Your task to perform on an android device: Open accessibility settings Image 0: 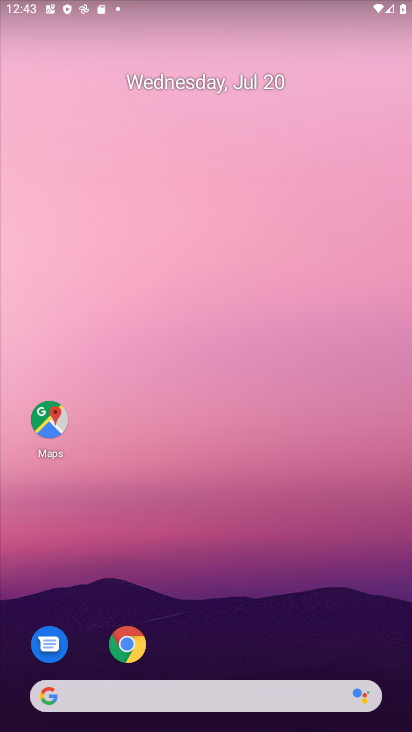
Step 0: press home button
Your task to perform on an android device: Open accessibility settings Image 1: 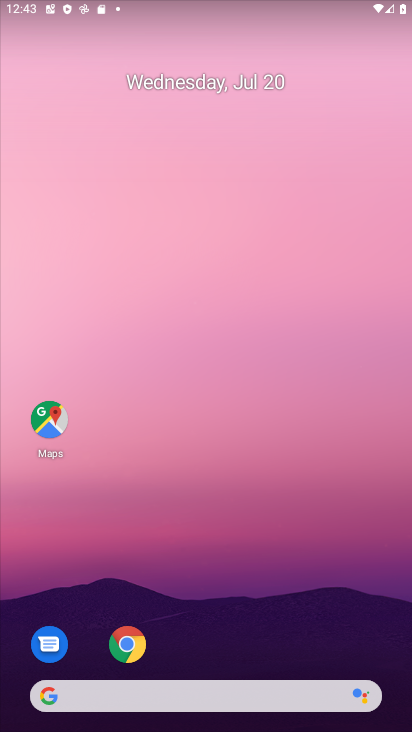
Step 1: drag from (205, 711) to (165, 175)
Your task to perform on an android device: Open accessibility settings Image 2: 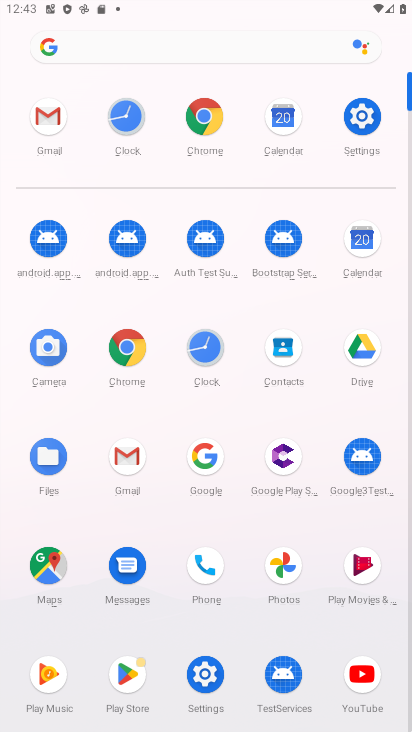
Step 2: click (206, 658)
Your task to perform on an android device: Open accessibility settings Image 3: 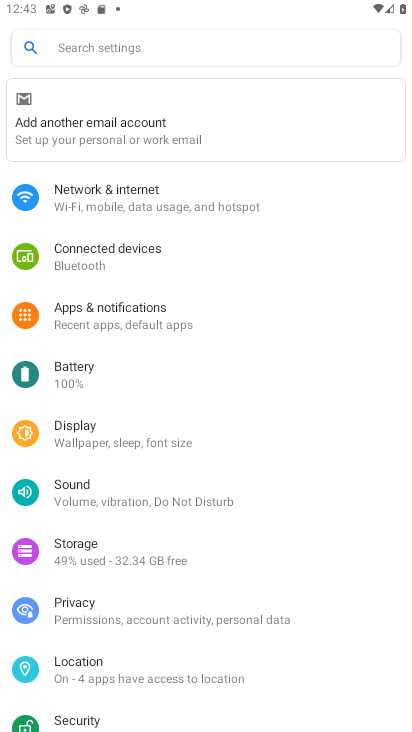
Step 3: drag from (131, 567) to (124, 301)
Your task to perform on an android device: Open accessibility settings Image 4: 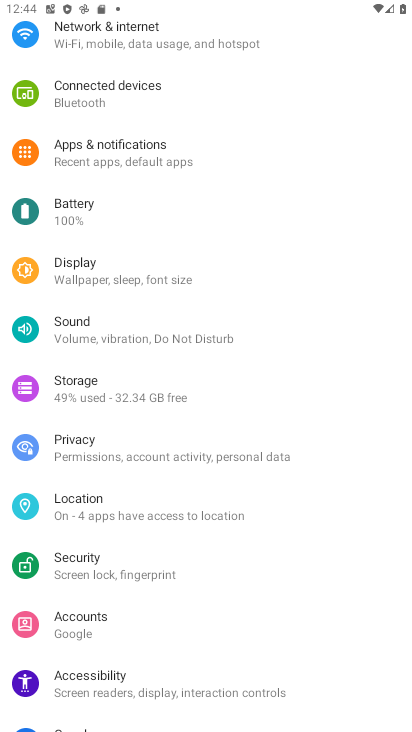
Step 4: drag from (167, 647) to (176, 411)
Your task to perform on an android device: Open accessibility settings Image 5: 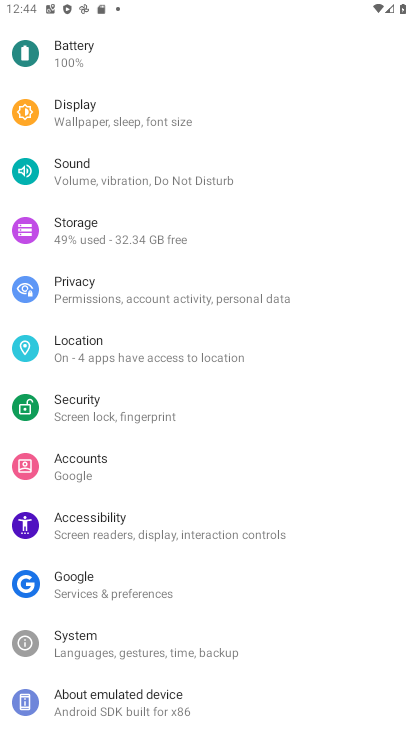
Step 5: click (100, 537)
Your task to perform on an android device: Open accessibility settings Image 6: 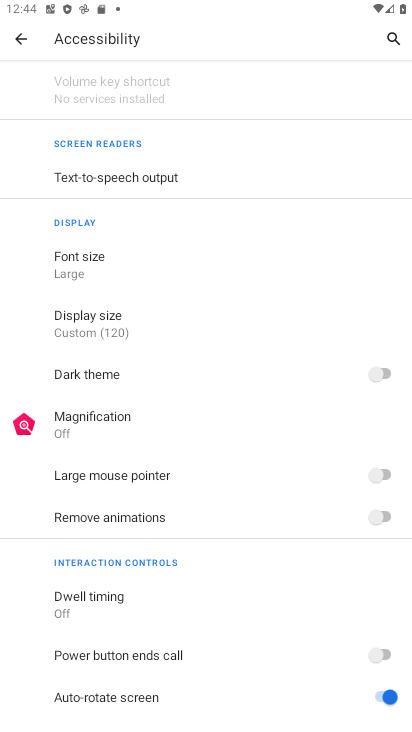
Step 6: task complete